Your task to perform on an android device: Open calendar and show me the third week of next month Image 0: 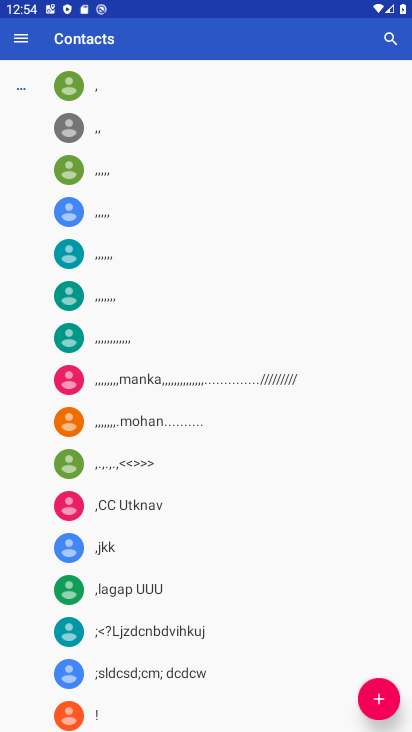
Step 0: press home button
Your task to perform on an android device: Open calendar and show me the third week of next month Image 1: 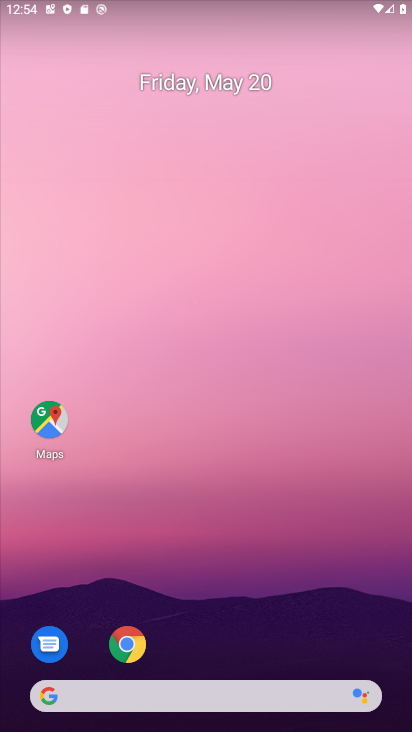
Step 1: drag from (292, 586) to (332, 49)
Your task to perform on an android device: Open calendar and show me the third week of next month Image 2: 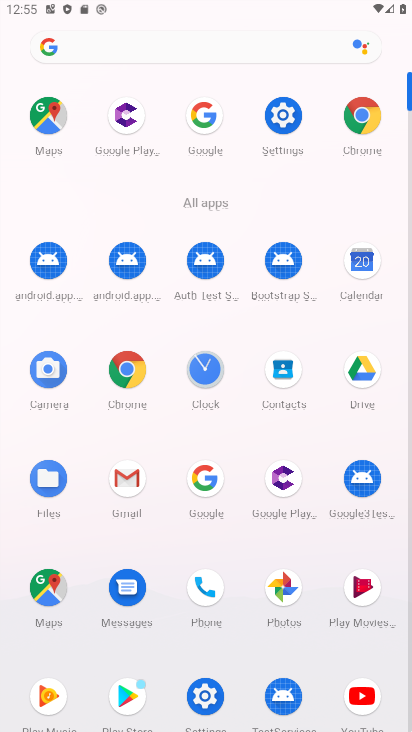
Step 2: click (373, 271)
Your task to perform on an android device: Open calendar and show me the third week of next month Image 3: 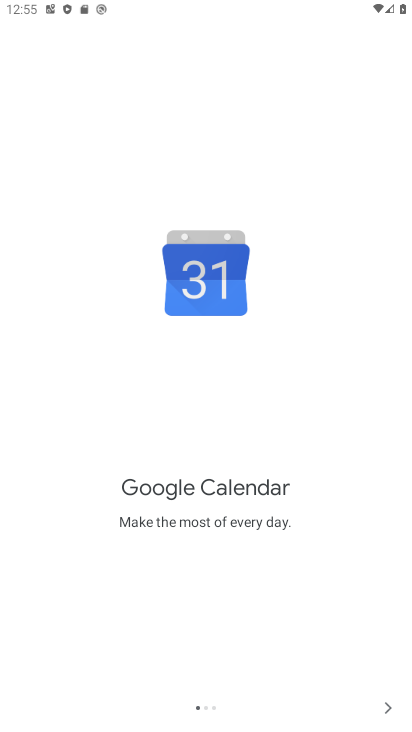
Step 3: click (373, 702)
Your task to perform on an android device: Open calendar and show me the third week of next month Image 4: 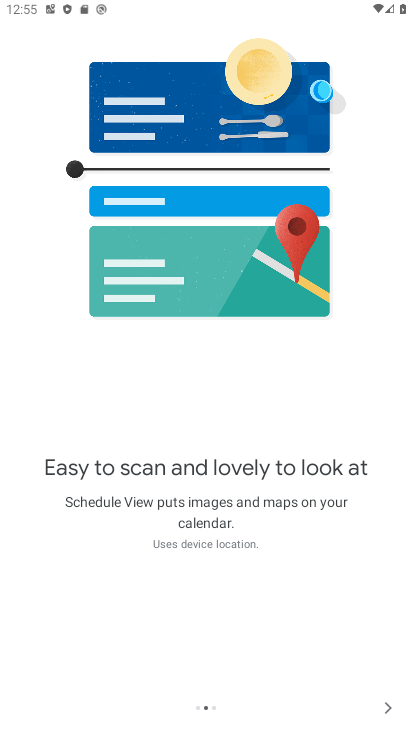
Step 4: click (375, 695)
Your task to perform on an android device: Open calendar and show me the third week of next month Image 5: 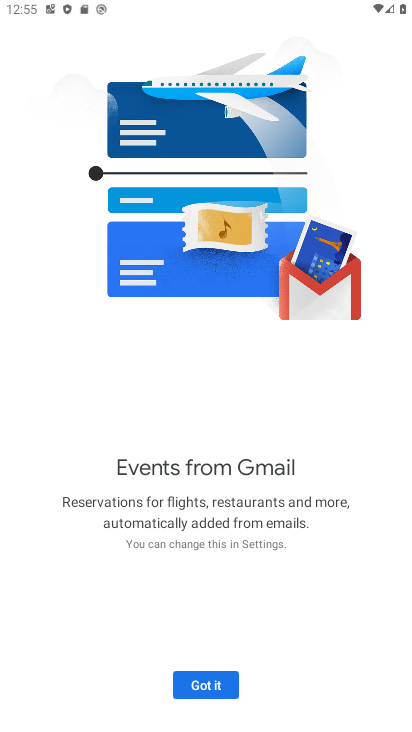
Step 5: click (219, 686)
Your task to perform on an android device: Open calendar and show me the third week of next month Image 6: 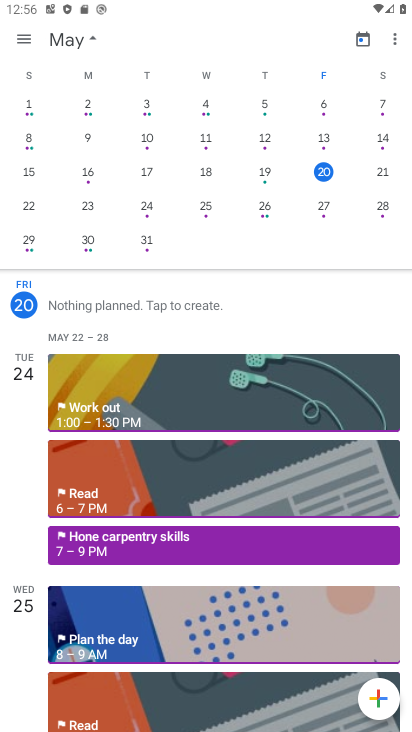
Step 6: drag from (324, 164) to (24, 197)
Your task to perform on an android device: Open calendar and show me the third week of next month Image 7: 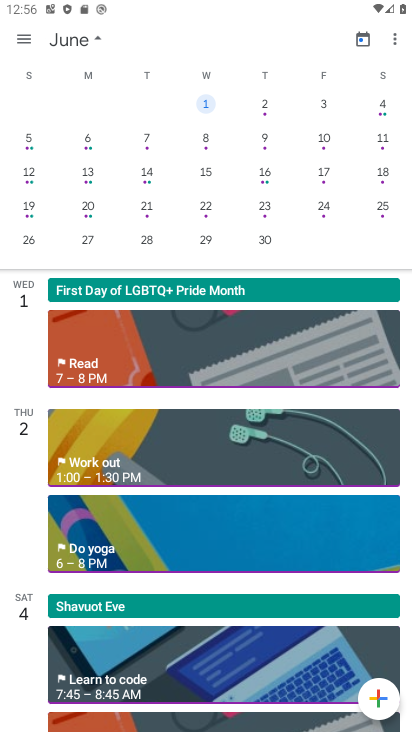
Step 7: click (143, 210)
Your task to perform on an android device: Open calendar and show me the third week of next month Image 8: 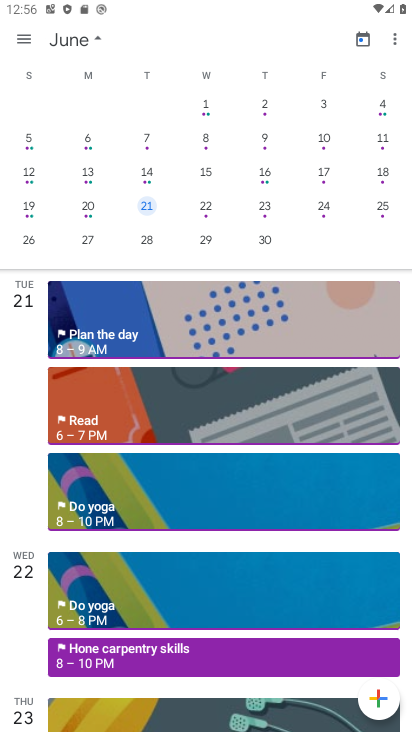
Step 8: task complete